Your task to perform on an android device: open wifi settings Image 0: 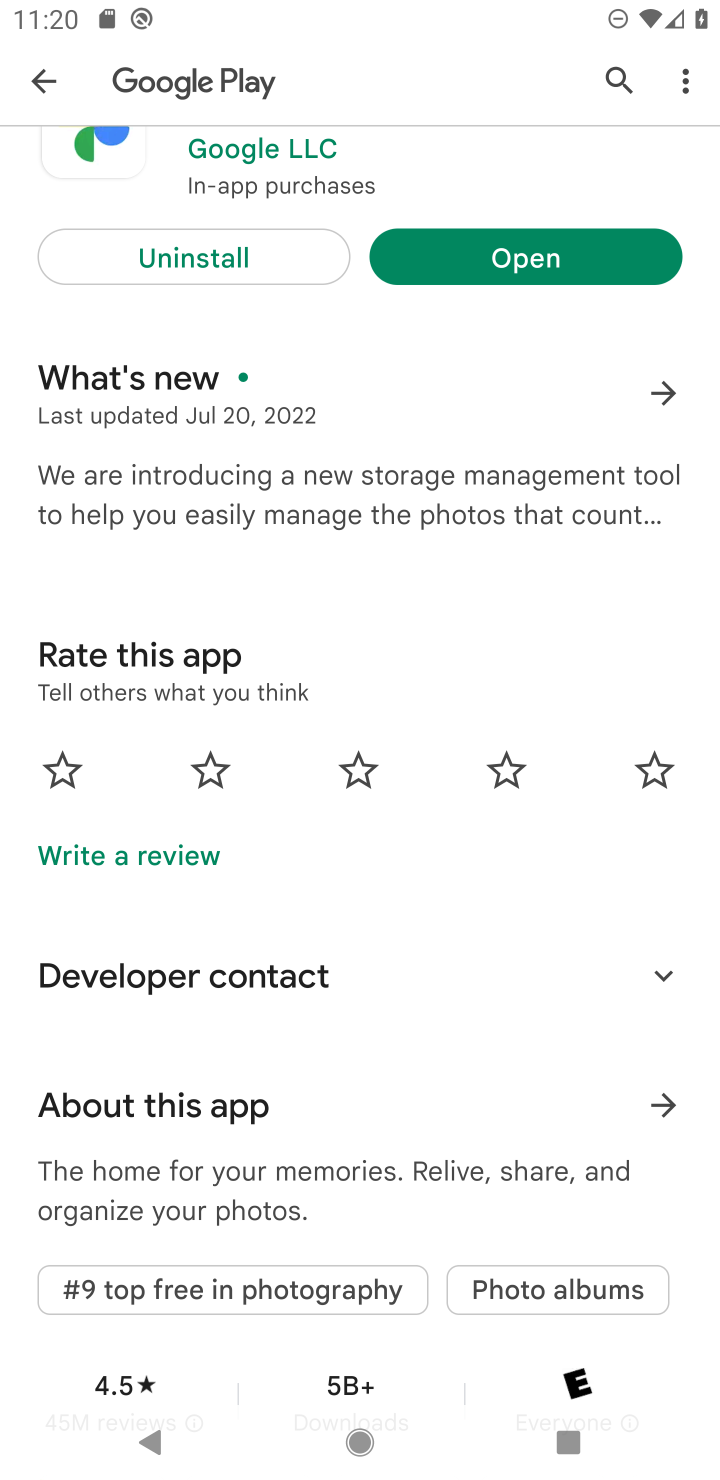
Step 0: drag from (377, 1118) to (483, 1472)
Your task to perform on an android device: open wifi settings Image 1: 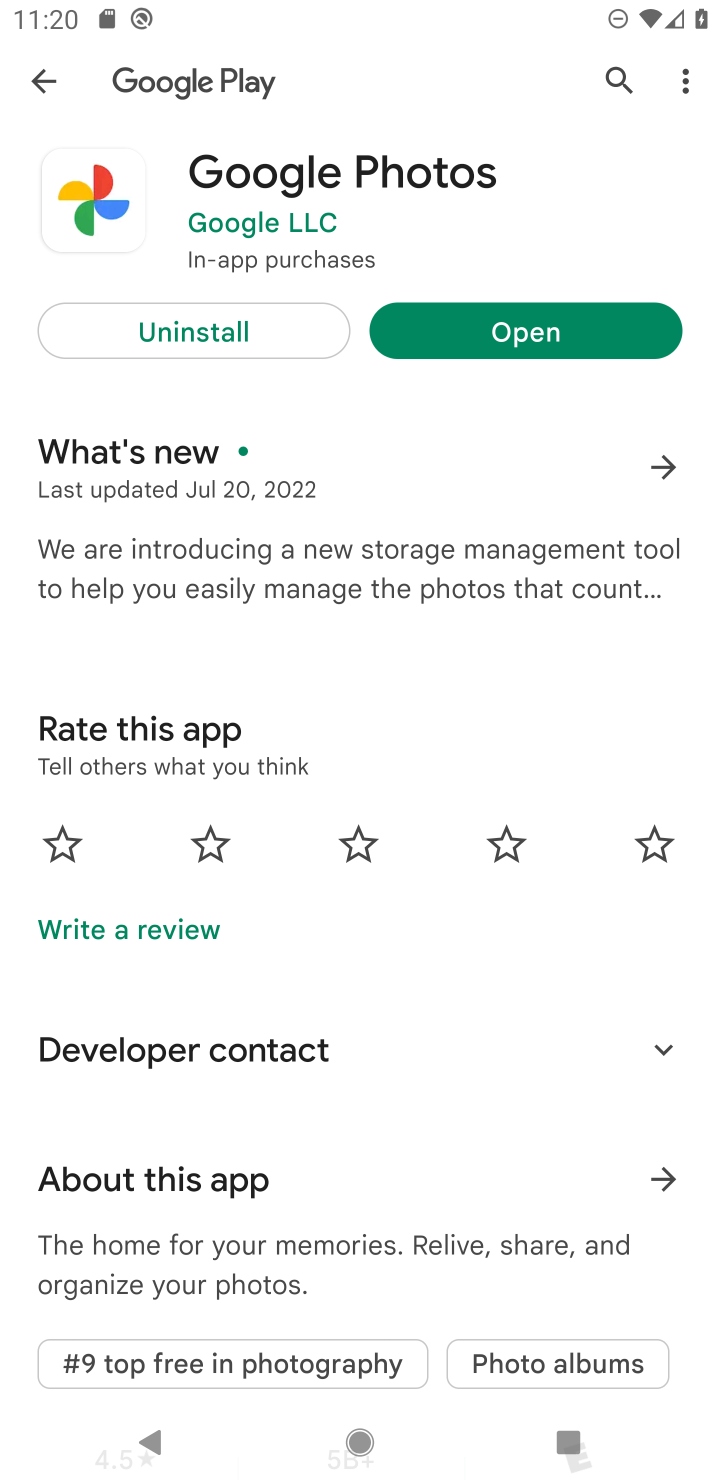
Step 1: press home button
Your task to perform on an android device: open wifi settings Image 2: 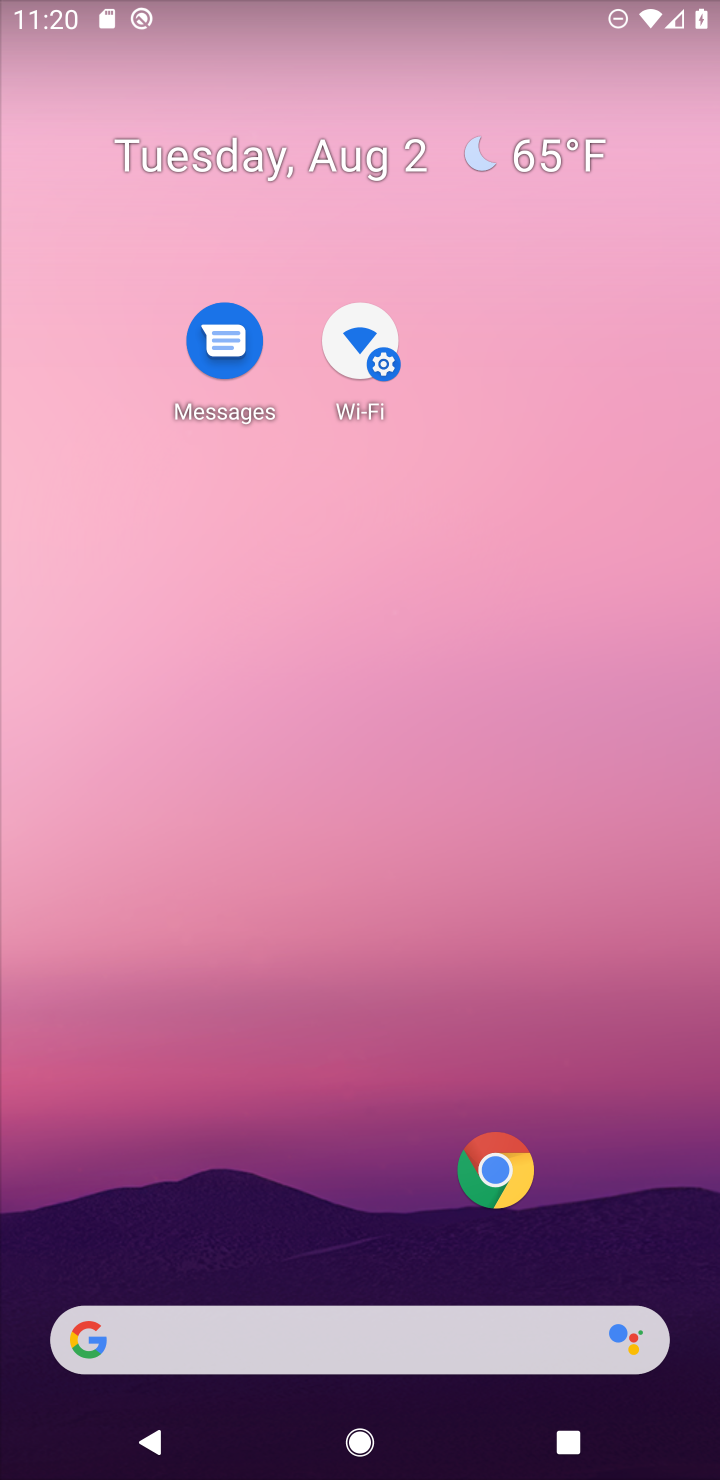
Step 2: drag from (374, 1115) to (431, 64)
Your task to perform on an android device: open wifi settings Image 3: 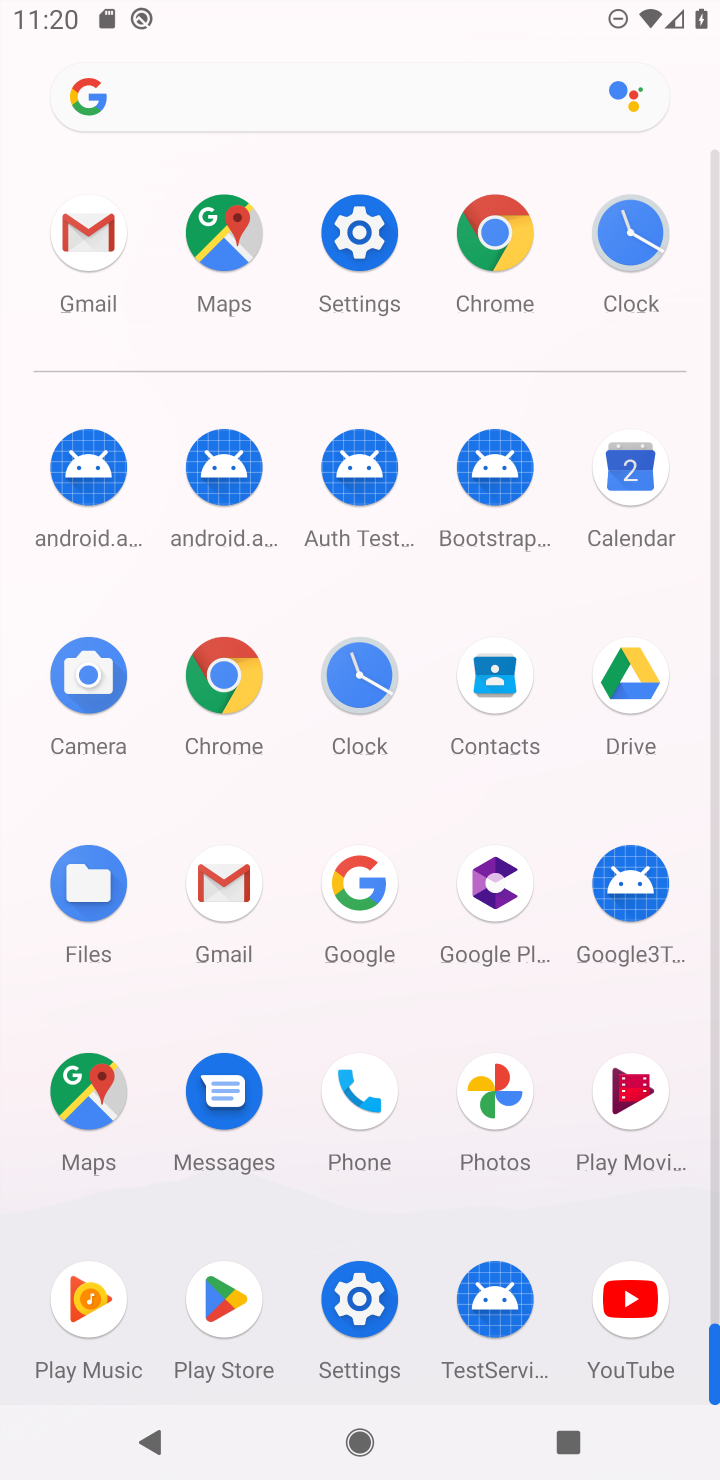
Step 3: click (344, 245)
Your task to perform on an android device: open wifi settings Image 4: 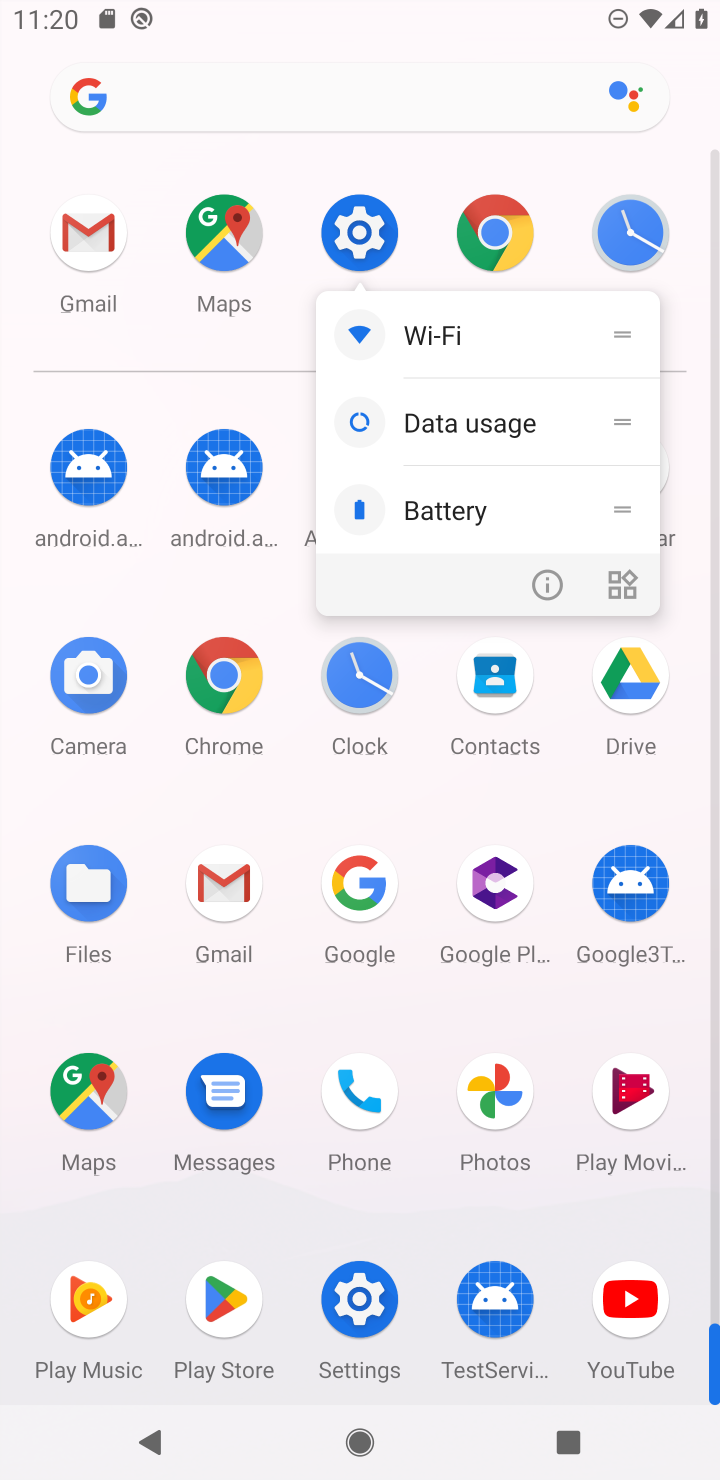
Step 4: click (528, 585)
Your task to perform on an android device: open wifi settings Image 5: 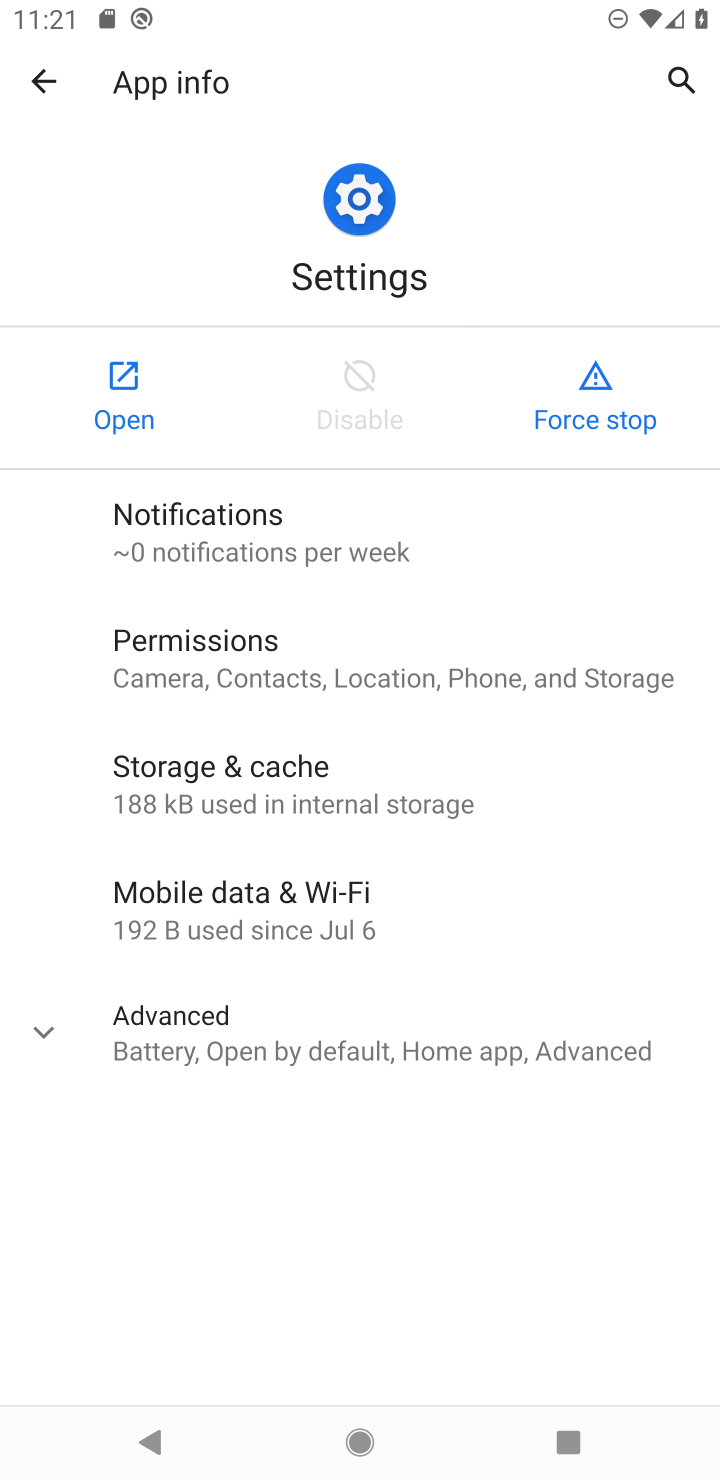
Step 5: click (117, 407)
Your task to perform on an android device: open wifi settings Image 6: 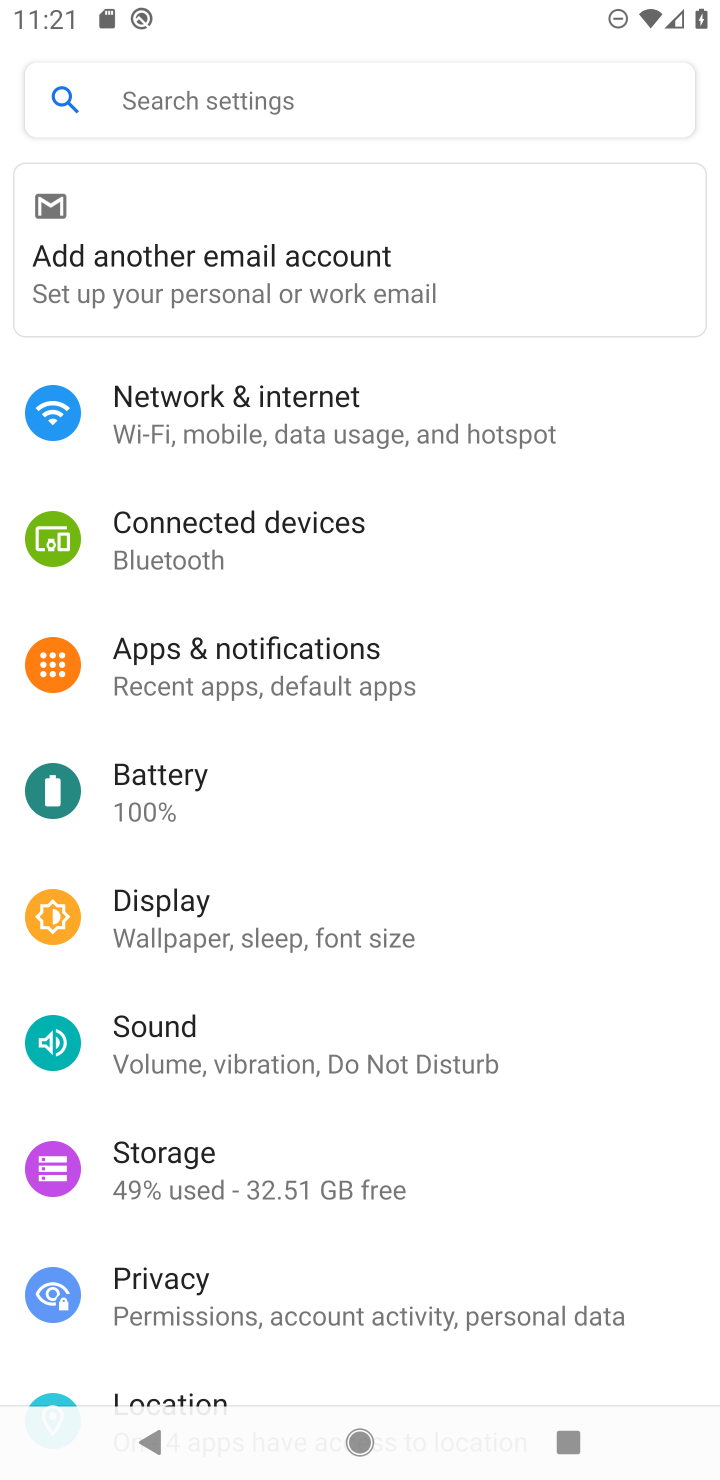
Step 6: click (272, 423)
Your task to perform on an android device: open wifi settings Image 7: 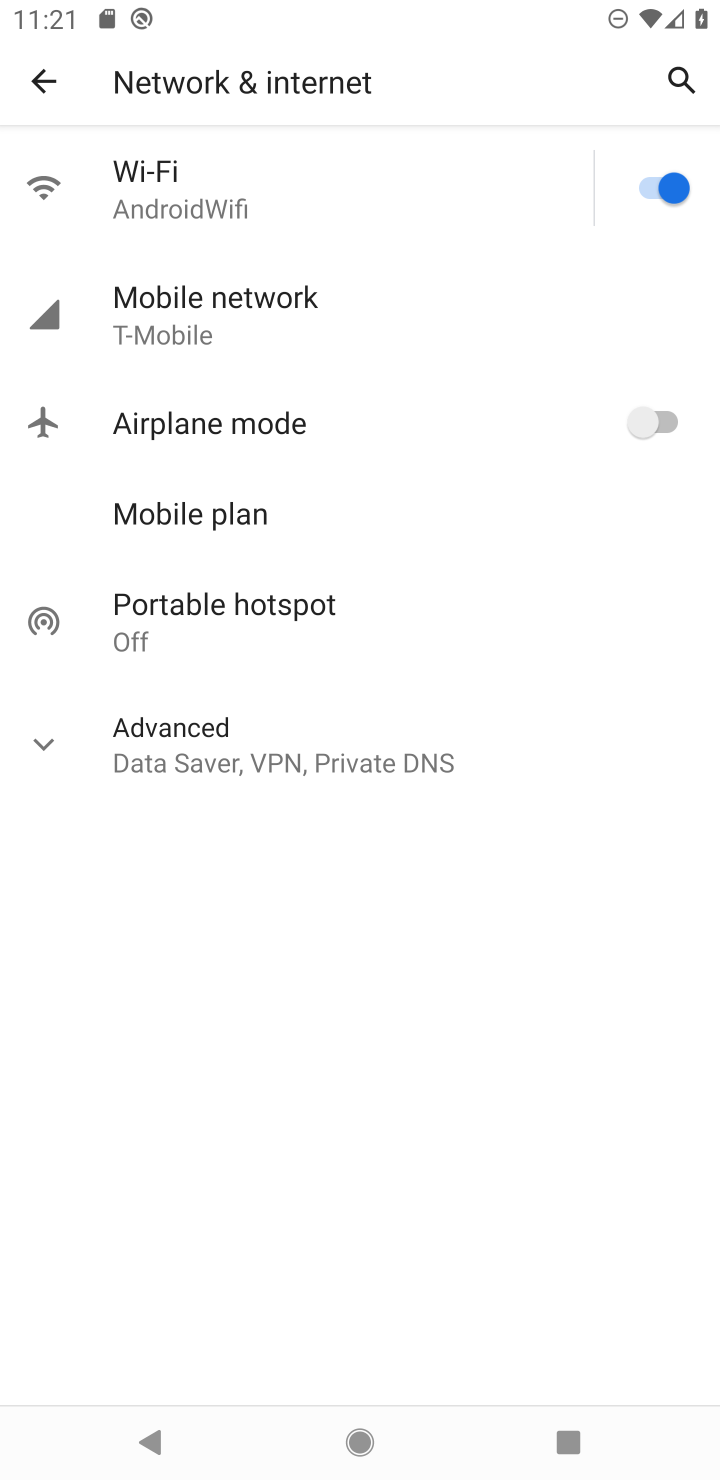
Step 7: click (279, 211)
Your task to perform on an android device: open wifi settings Image 8: 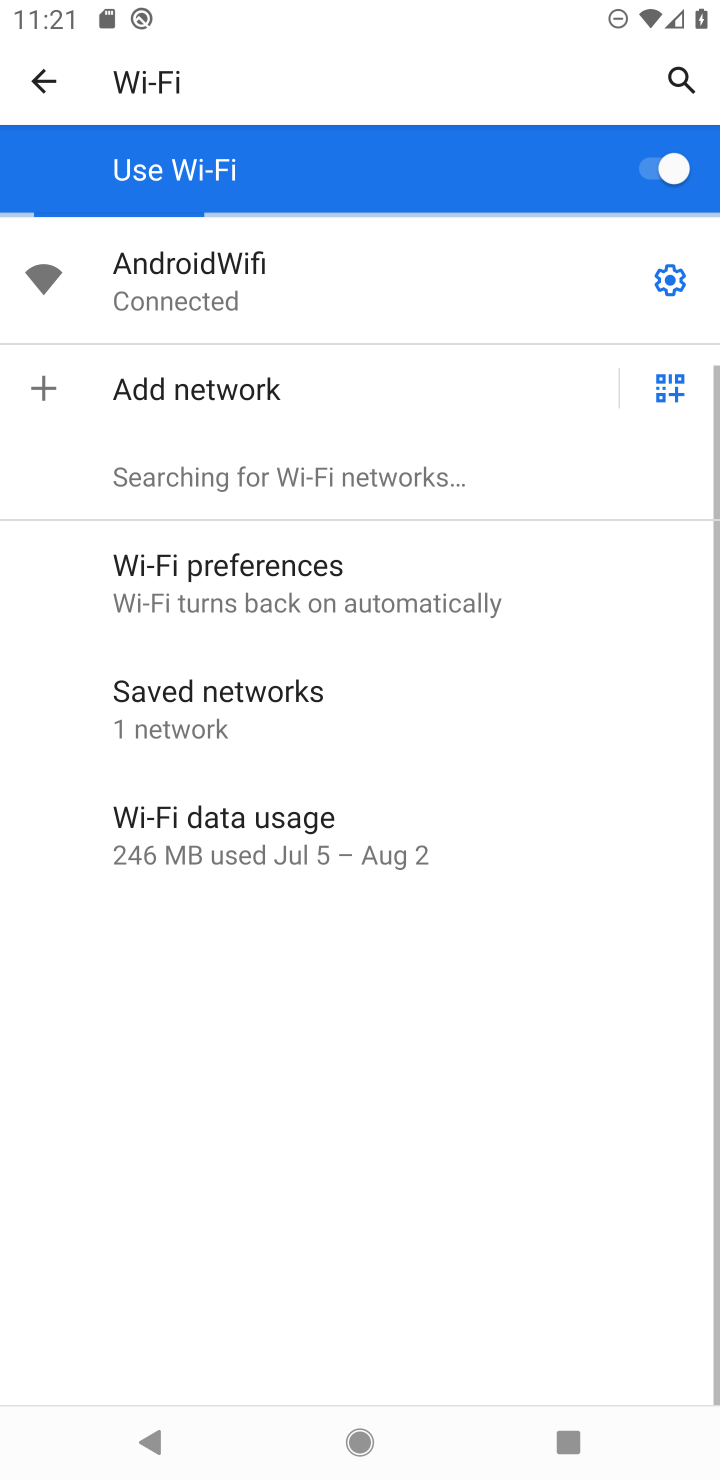
Step 8: click (675, 262)
Your task to perform on an android device: open wifi settings Image 9: 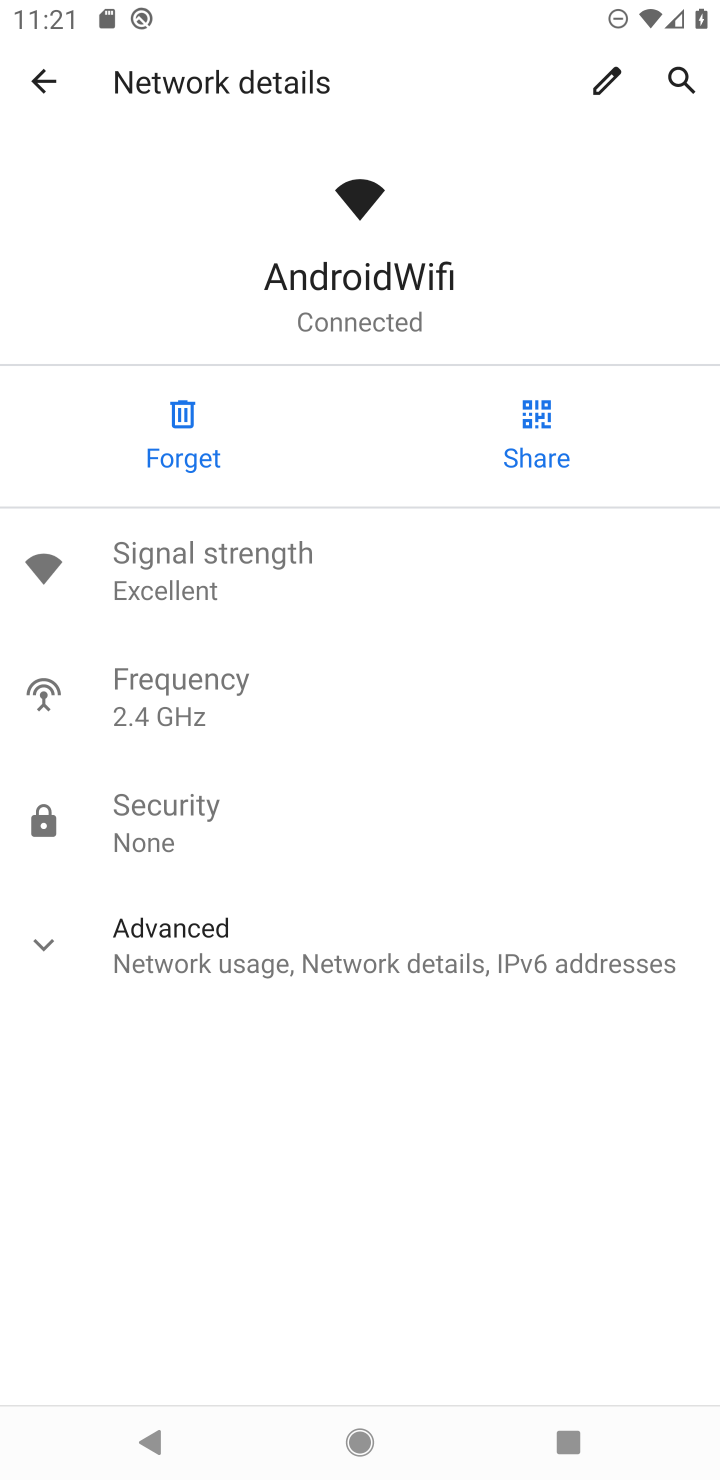
Step 9: task complete